Your task to perform on an android device: Open the phone app and click the voicemail tab. Image 0: 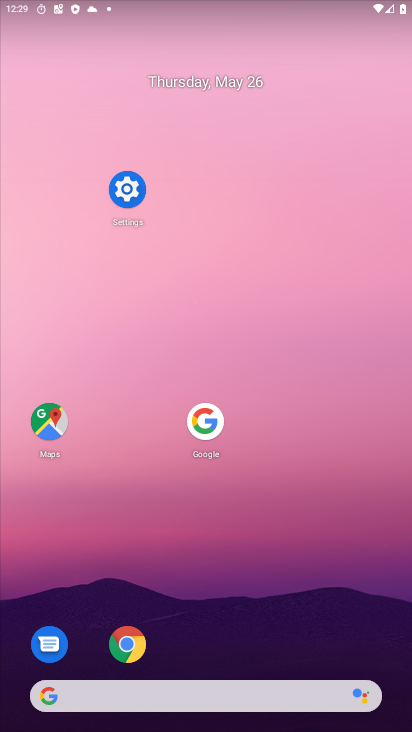
Step 0: drag from (261, 575) to (308, 47)
Your task to perform on an android device: Open the phone app and click the voicemail tab. Image 1: 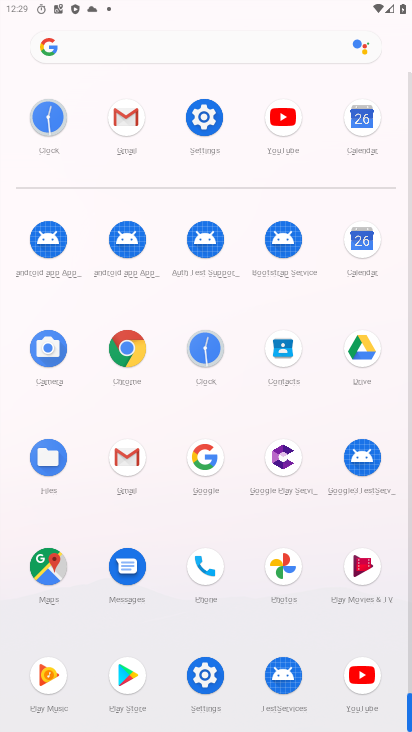
Step 1: drag from (178, 599) to (177, 388)
Your task to perform on an android device: Open the phone app and click the voicemail tab. Image 2: 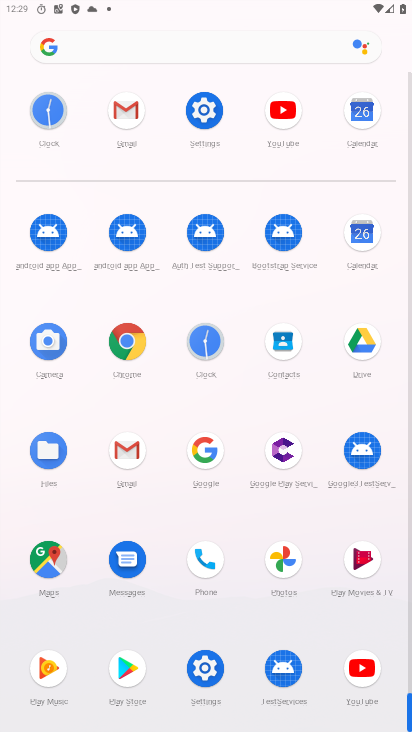
Step 2: click (211, 540)
Your task to perform on an android device: Open the phone app and click the voicemail tab. Image 3: 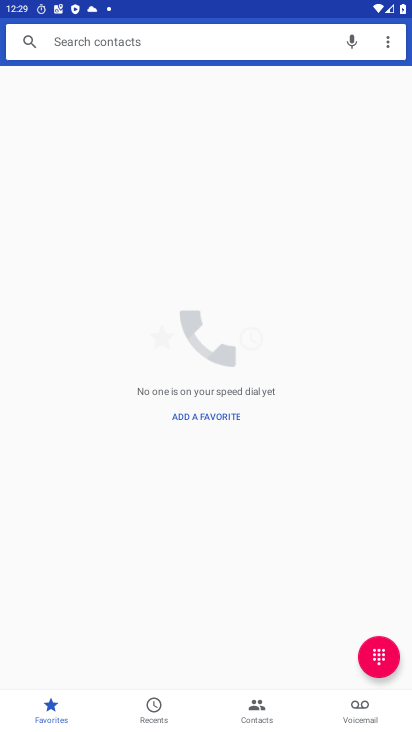
Step 3: click (374, 698)
Your task to perform on an android device: Open the phone app and click the voicemail tab. Image 4: 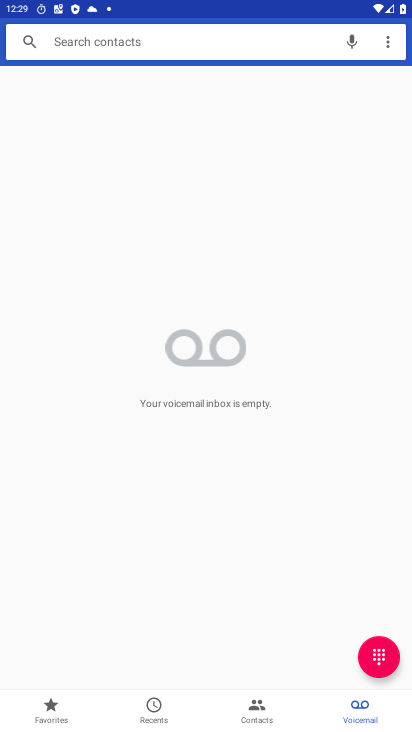
Step 4: task complete